Your task to perform on an android device: turn off picture-in-picture Image 0: 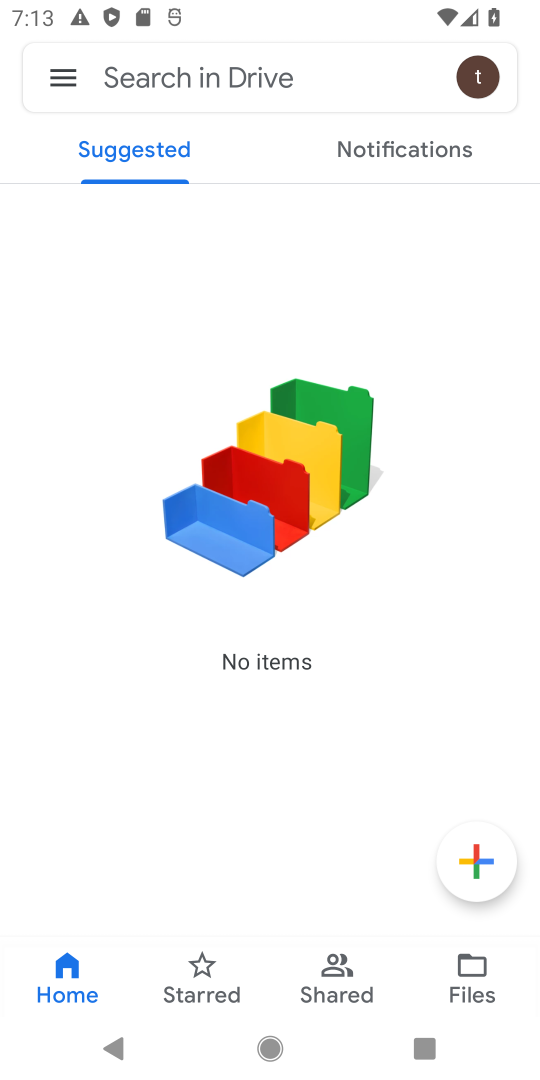
Step 0: press home button
Your task to perform on an android device: turn off picture-in-picture Image 1: 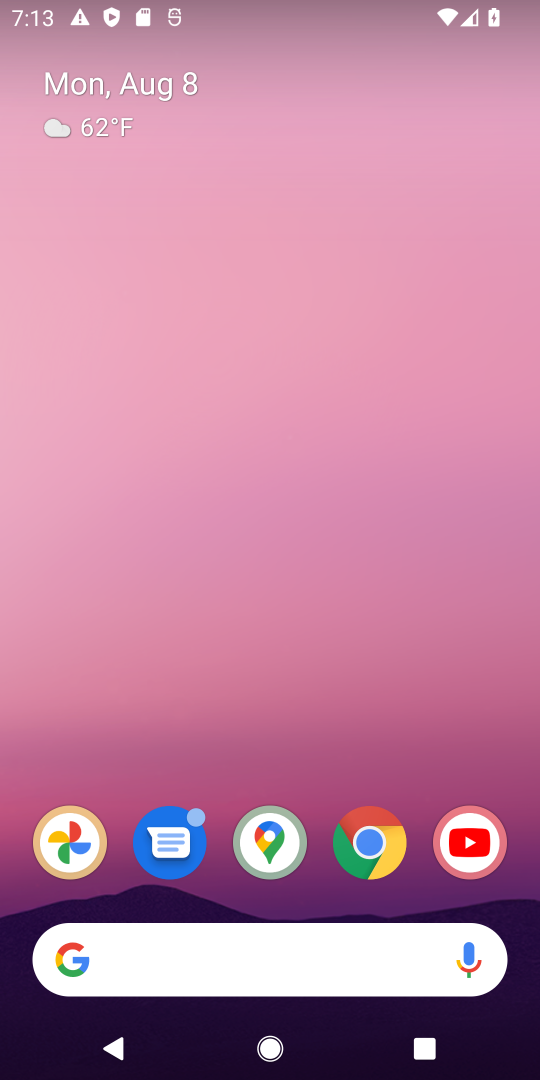
Step 1: click (368, 835)
Your task to perform on an android device: turn off picture-in-picture Image 2: 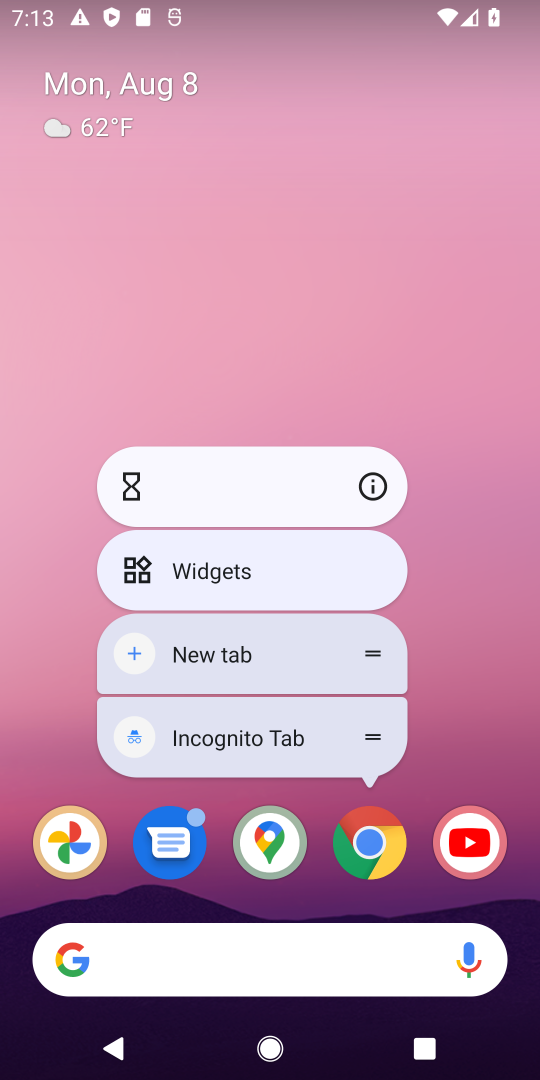
Step 2: click (375, 478)
Your task to perform on an android device: turn off picture-in-picture Image 3: 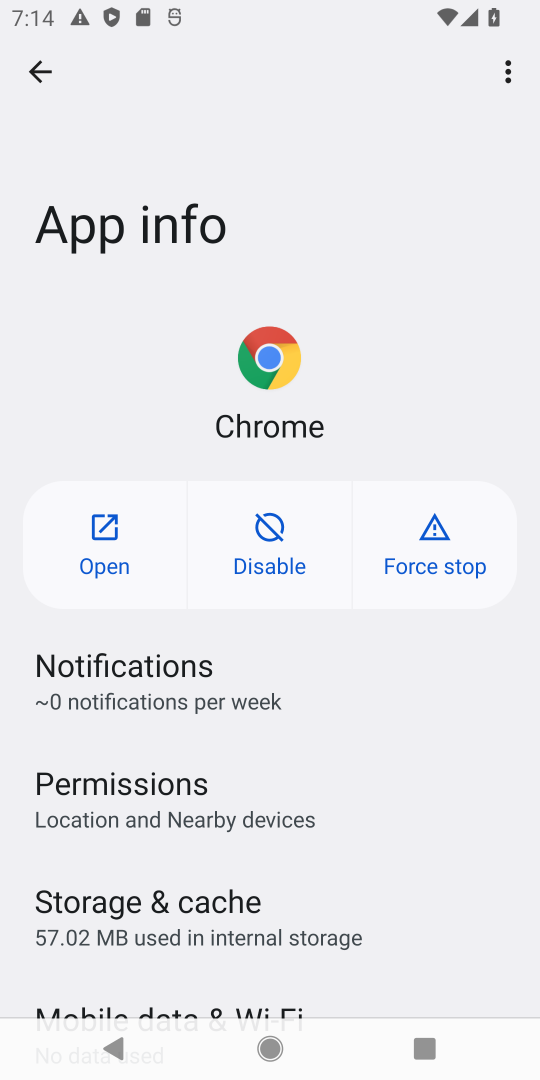
Step 3: click (511, 72)
Your task to perform on an android device: turn off picture-in-picture Image 4: 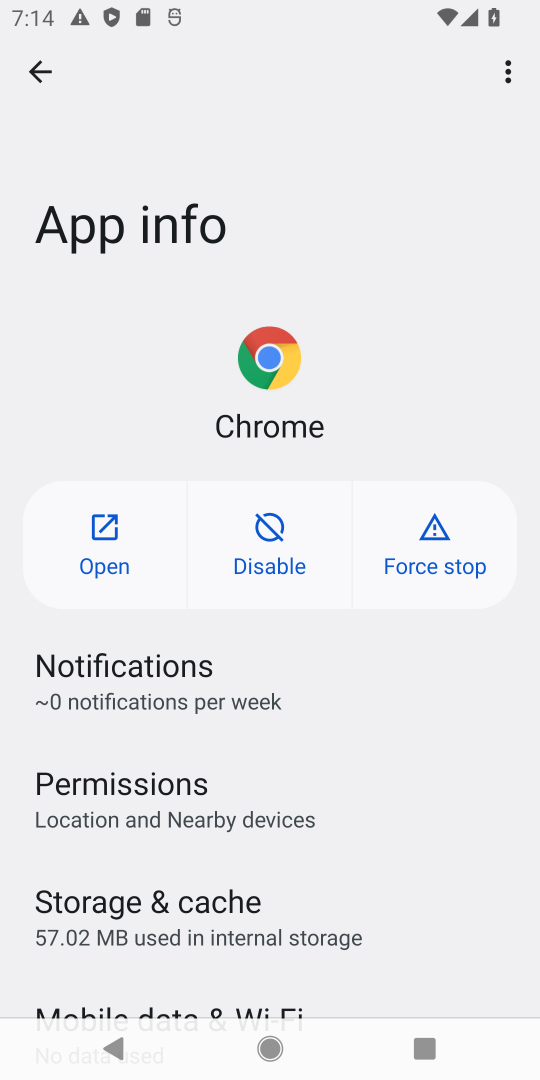
Step 4: click (504, 71)
Your task to perform on an android device: turn off picture-in-picture Image 5: 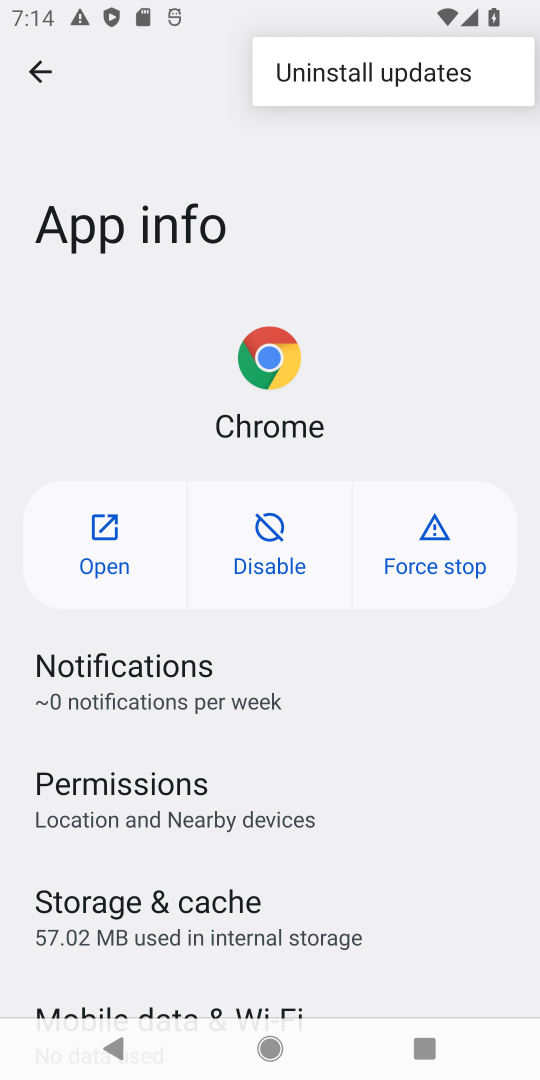
Step 5: drag from (399, 952) to (429, 229)
Your task to perform on an android device: turn off picture-in-picture Image 6: 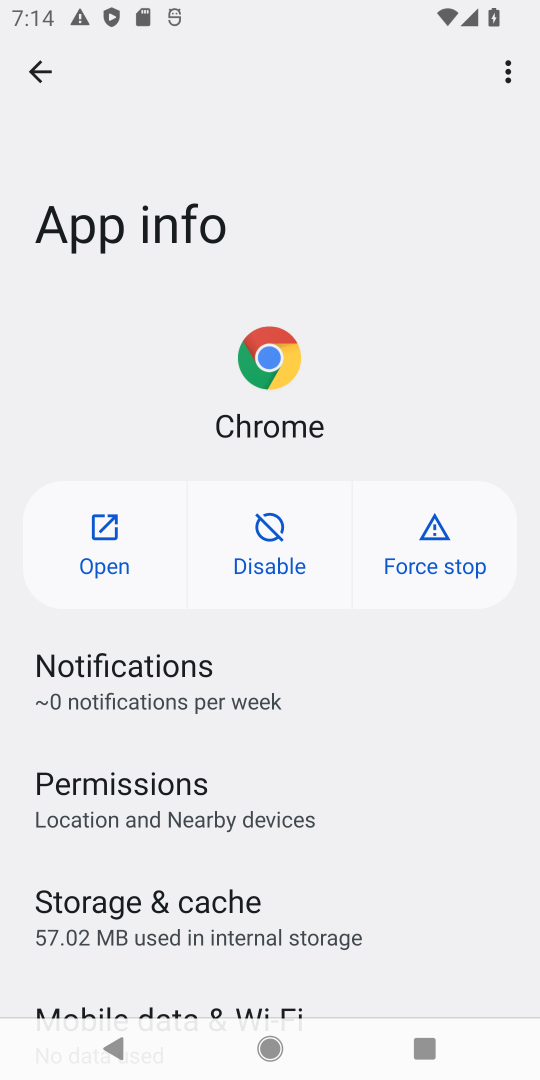
Step 6: drag from (421, 955) to (406, 238)
Your task to perform on an android device: turn off picture-in-picture Image 7: 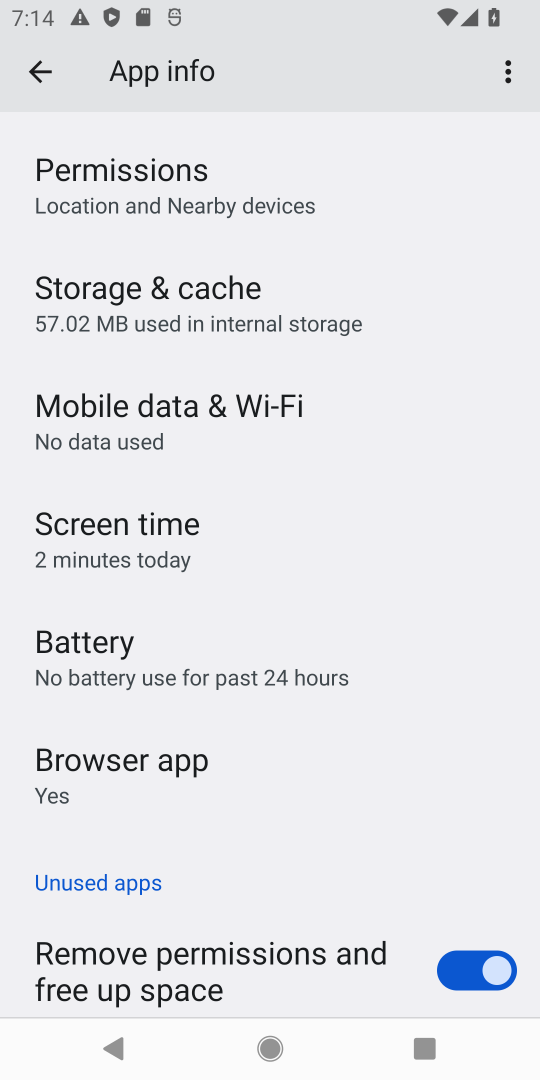
Step 7: drag from (398, 829) to (407, 254)
Your task to perform on an android device: turn off picture-in-picture Image 8: 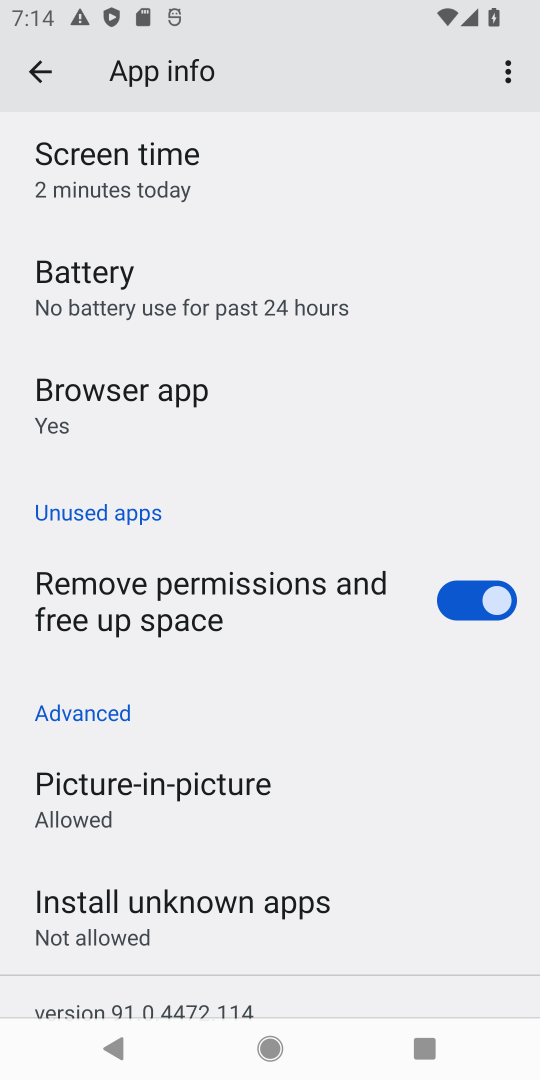
Step 8: drag from (391, 924) to (396, 262)
Your task to perform on an android device: turn off picture-in-picture Image 9: 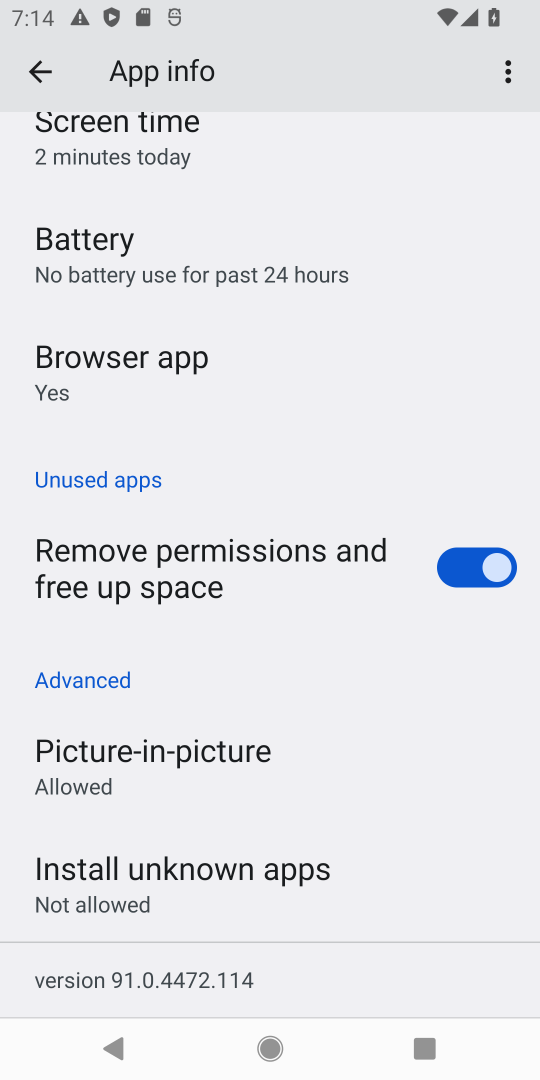
Step 9: click (155, 761)
Your task to perform on an android device: turn off picture-in-picture Image 10: 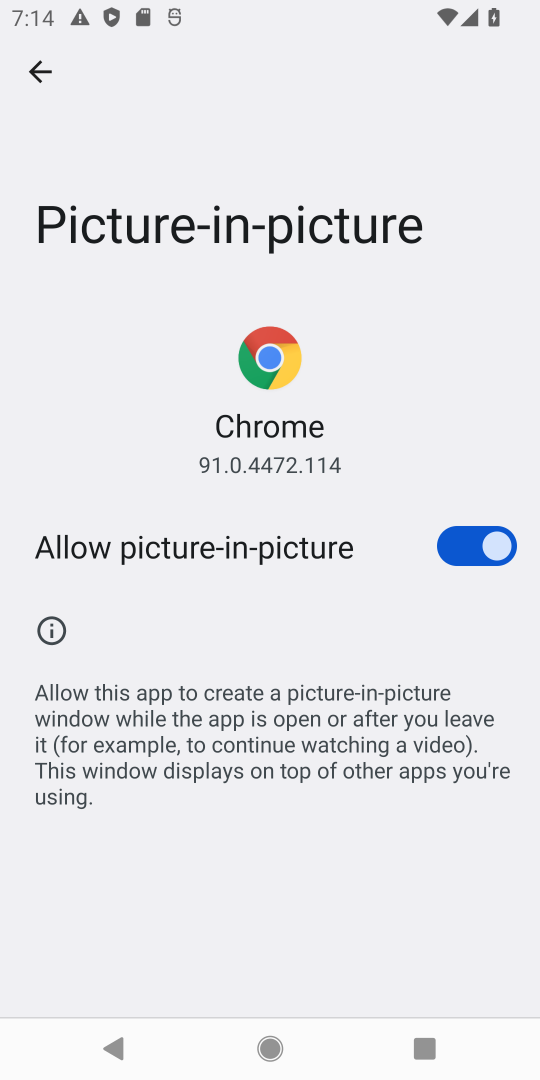
Step 10: click (485, 544)
Your task to perform on an android device: turn off picture-in-picture Image 11: 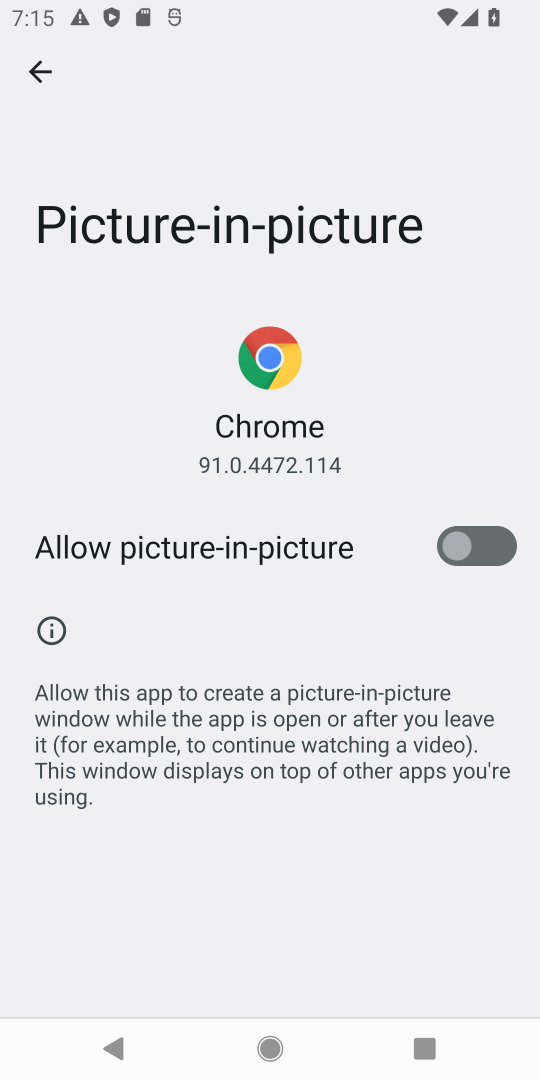
Step 11: task complete